Your task to perform on an android device: toggle improve location accuracy Image 0: 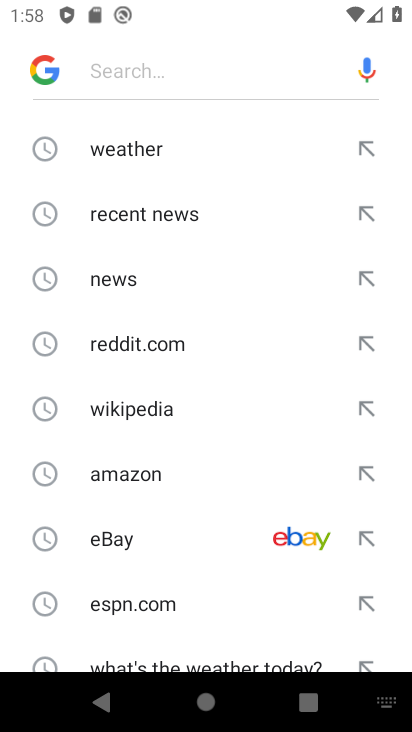
Step 0: press home button
Your task to perform on an android device: toggle improve location accuracy Image 1: 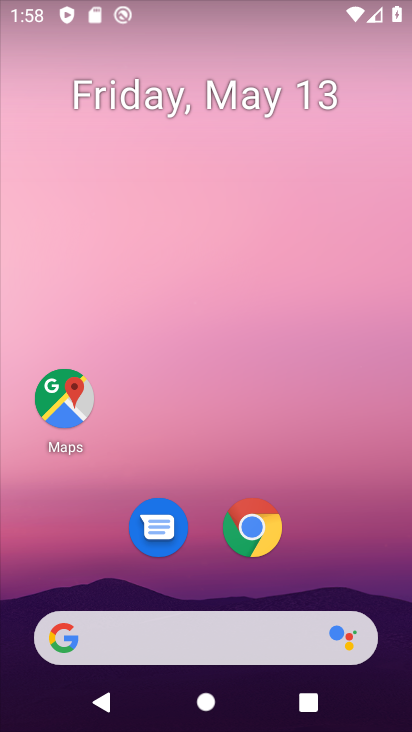
Step 1: drag from (365, 576) to (311, 196)
Your task to perform on an android device: toggle improve location accuracy Image 2: 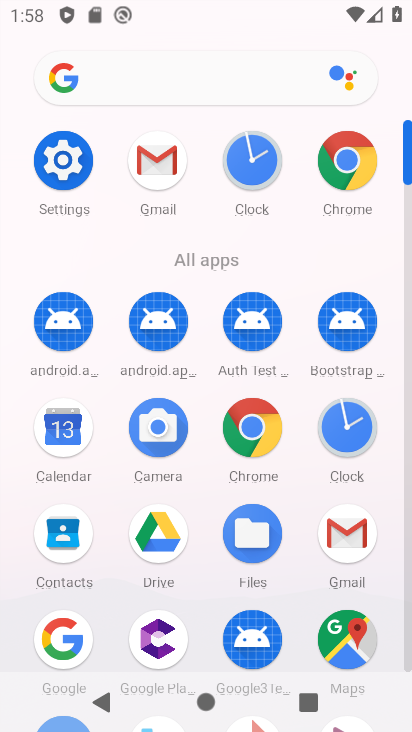
Step 2: click (77, 160)
Your task to perform on an android device: toggle improve location accuracy Image 3: 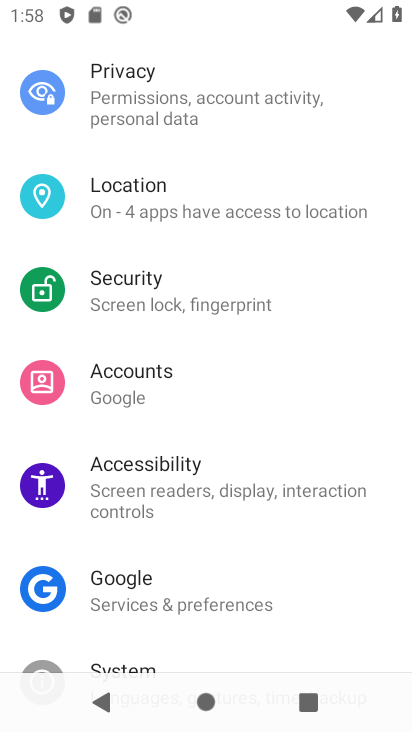
Step 3: drag from (293, 548) to (254, 168)
Your task to perform on an android device: toggle improve location accuracy Image 4: 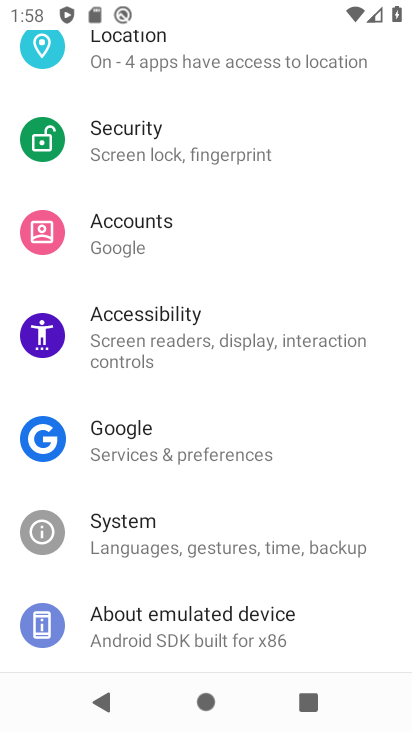
Step 4: drag from (231, 273) to (275, 596)
Your task to perform on an android device: toggle improve location accuracy Image 5: 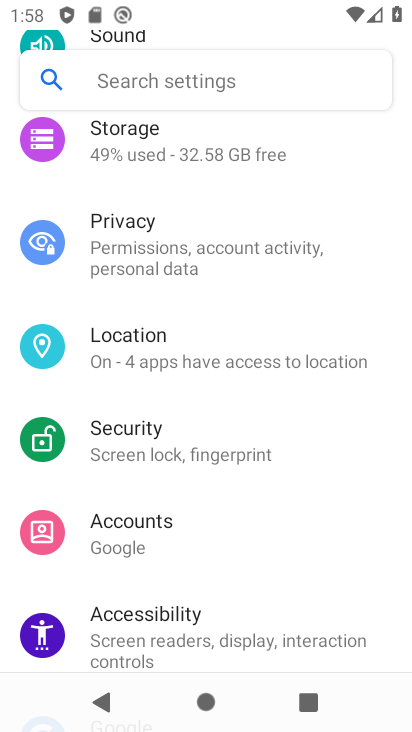
Step 5: click (183, 374)
Your task to perform on an android device: toggle improve location accuracy Image 6: 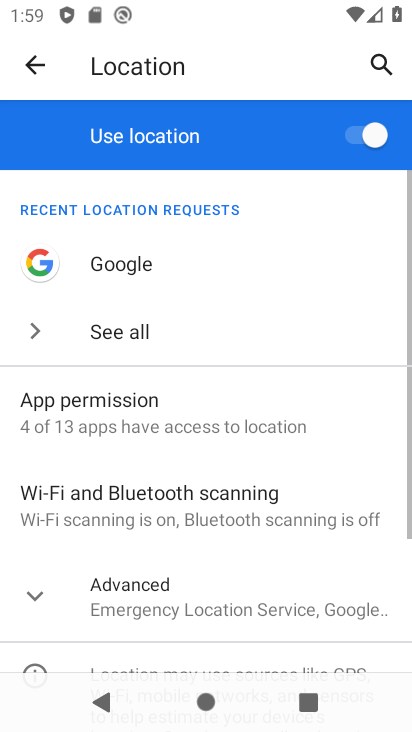
Step 6: drag from (324, 547) to (342, 305)
Your task to perform on an android device: toggle improve location accuracy Image 7: 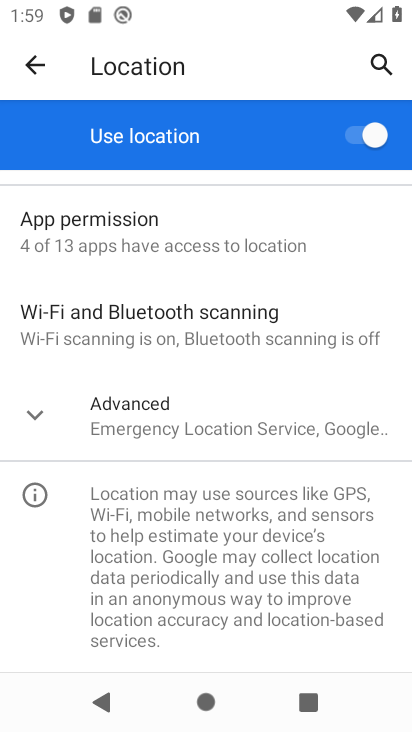
Step 7: click (278, 412)
Your task to perform on an android device: toggle improve location accuracy Image 8: 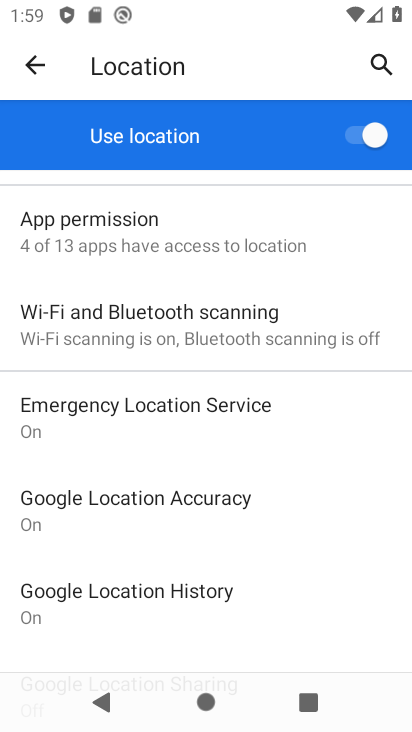
Step 8: click (211, 495)
Your task to perform on an android device: toggle improve location accuracy Image 9: 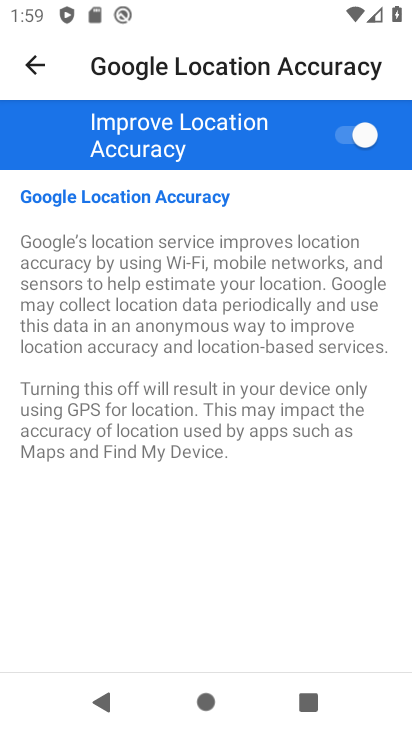
Step 9: click (344, 136)
Your task to perform on an android device: toggle improve location accuracy Image 10: 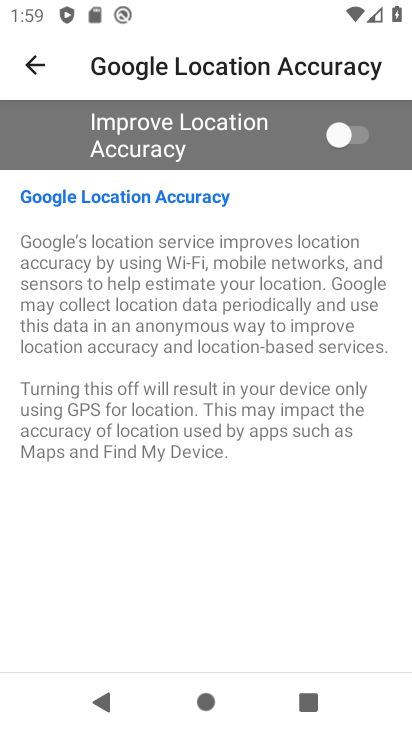
Step 10: task complete